Your task to perform on an android device: refresh tabs in the chrome app Image 0: 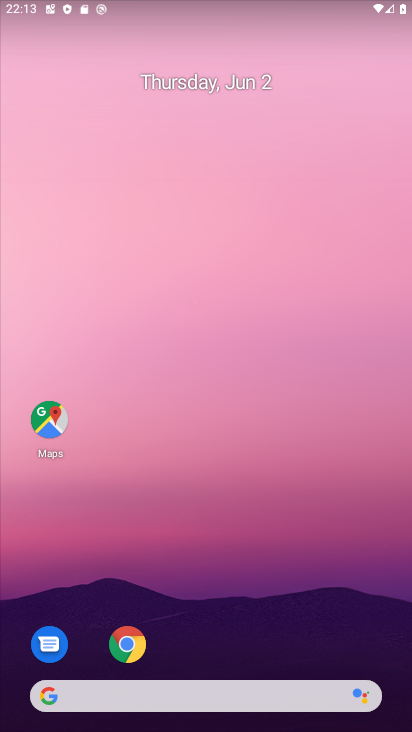
Step 0: click (128, 638)
Your task to perform on an android device: refresh tabs in the chrome app Image 1: 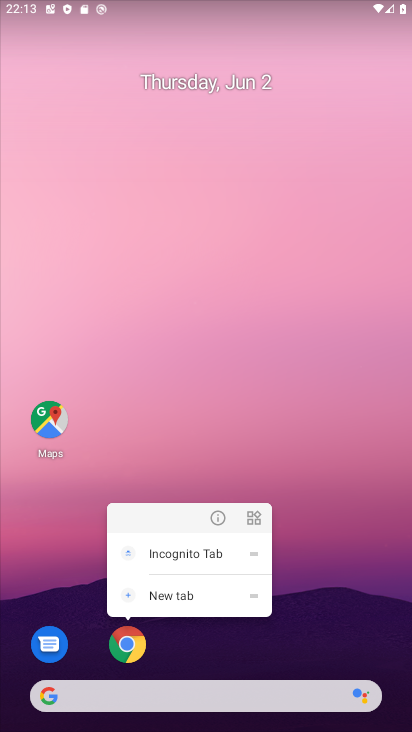
Step 1: click (129, 651)
Your task to perform on an android device: refresh tabs in the chrome app Image 2: 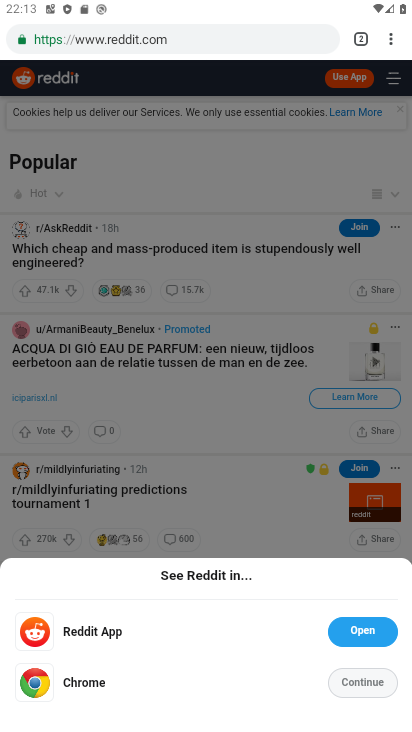
Step 2: click (359, 678)
Your task to perform on an android device: refresh tabs in the chrome app Image 3: 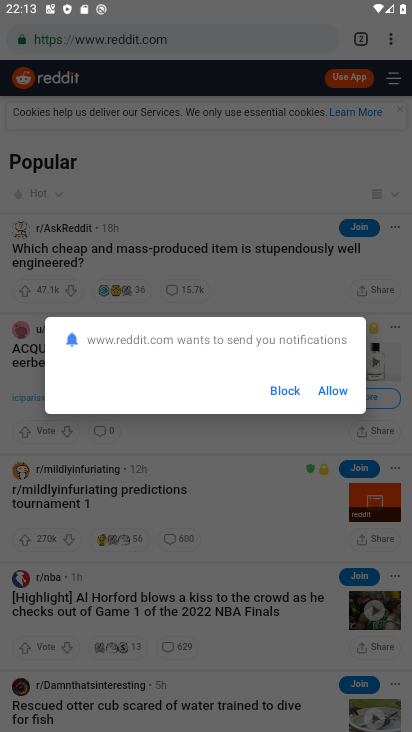
Step 3: click (286, 384)
Your task to perform on an android device: refresh tabs in the chrome app Image 4: 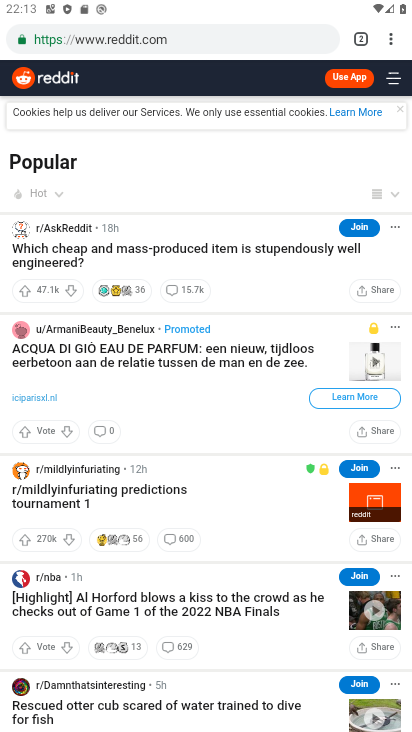
Step 4: click (385, 37)
Your task to perform on an android device: refresh tabs in the chrome app Image 5: 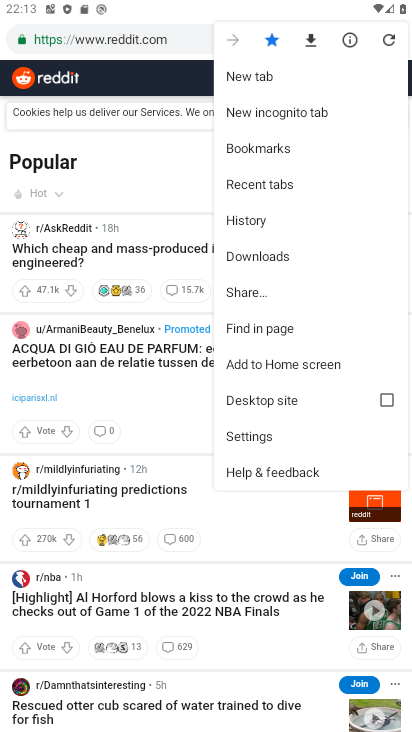
Step 5: click (387, 36)
Your task to perform on an android device: refresh tabs in the chrome app Image 6: 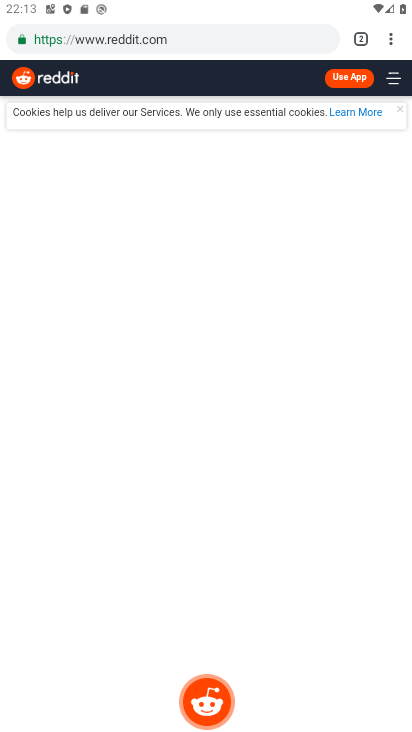
Step 6: task complete